Your task to perform on an android device: Open Maps and search for coffee Image 0: 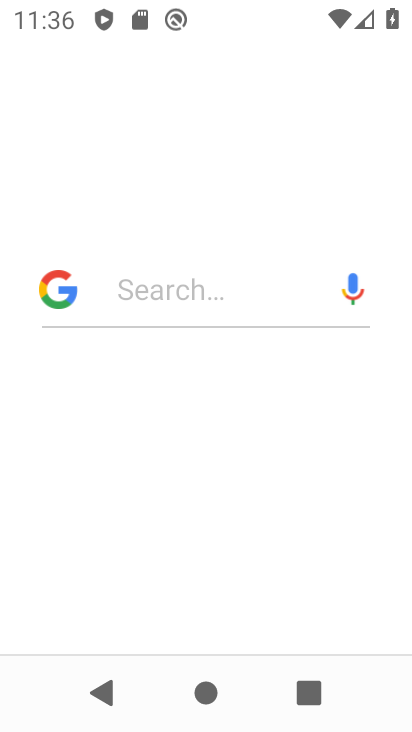
Step 0: drag from (186, 522) to (167, 398)
Your task to perform on an android device: Open Maps and search for coffee Image 1: 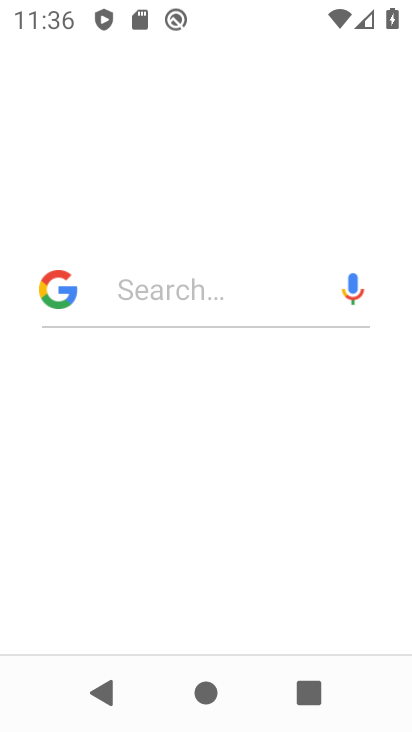
Step 1: press home button
Your task to perform on an android device: Open Maps and search for coffee Image 2: 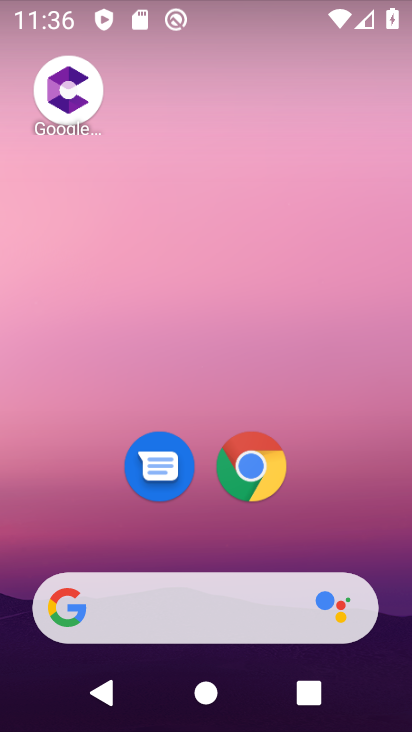
Step 2: drag from (217, 543) to (173, 111)
Your task to perform on an android device: Open Maps and search for coffee Image 3: 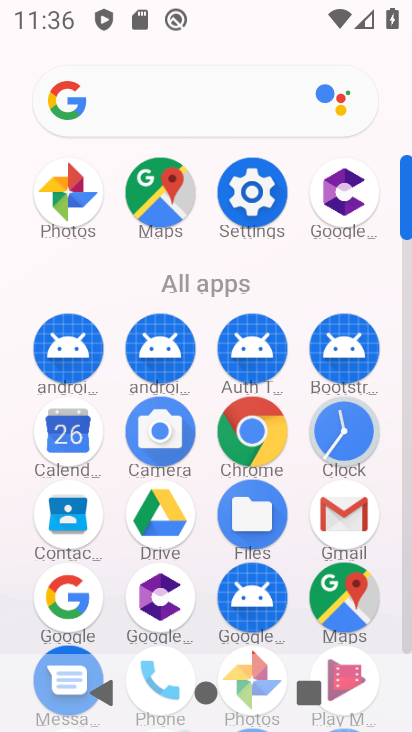
Step 3: click (168, 217)
Your task to perform on an android device: Open Maps and search for coffee Image 4: 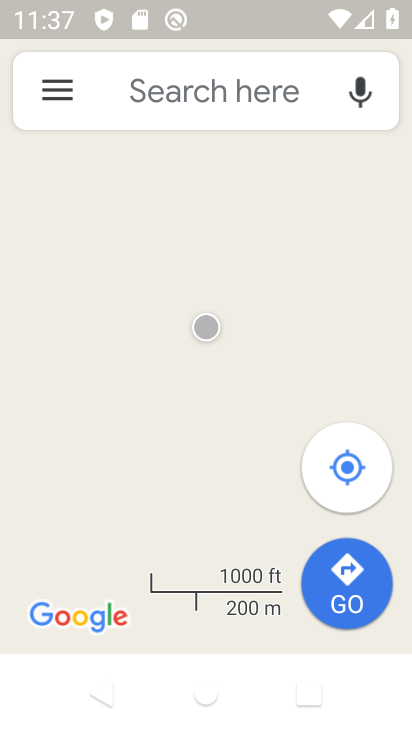
Step 4: click (191, 96)
Your task to perform on an android device: Open Maps and search for coffee Image 5: 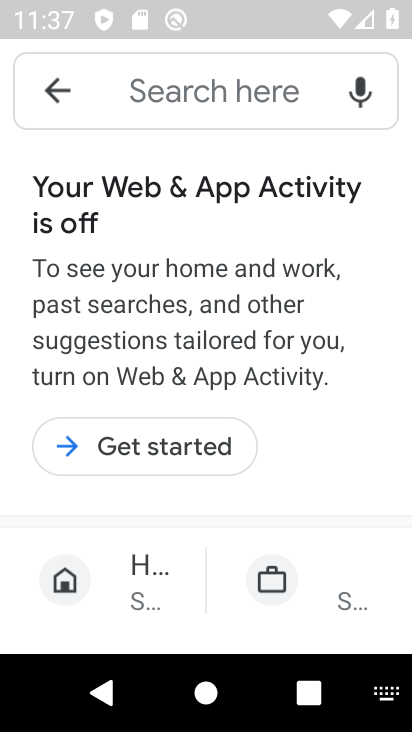
Step 5: click (62, 97)
Your task to perform on an android device: Open Maps and search for coffee Image 6: 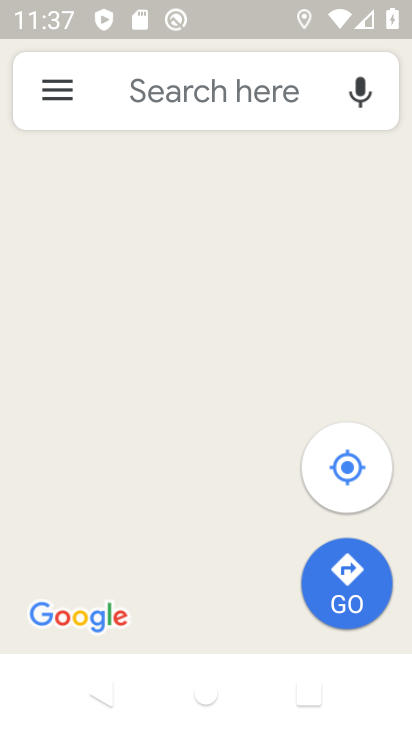
Step 6: click (188, 83)
Your task to perform on an android device: Open Maps and search for coffee Image 7: 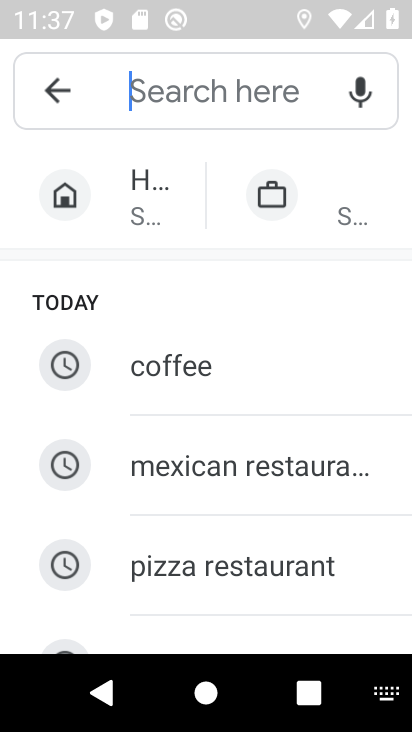
Step 7: click (189, 370)
Your task to perform on an android device: Open Maps and search for coffee Image 8: 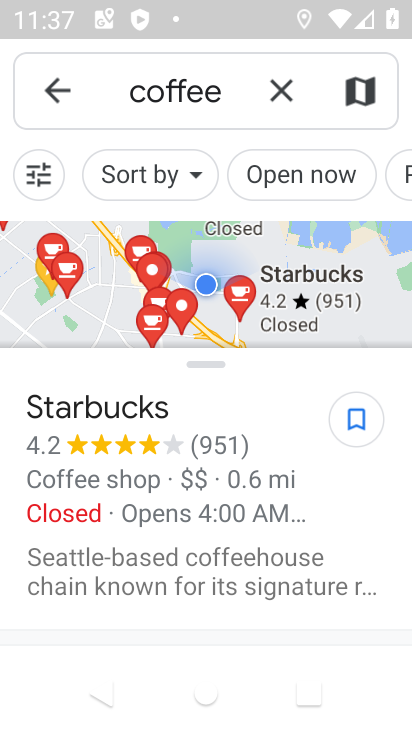
Step 8: task complete